Your task to perform on an android device: Show me recent news Image 0: 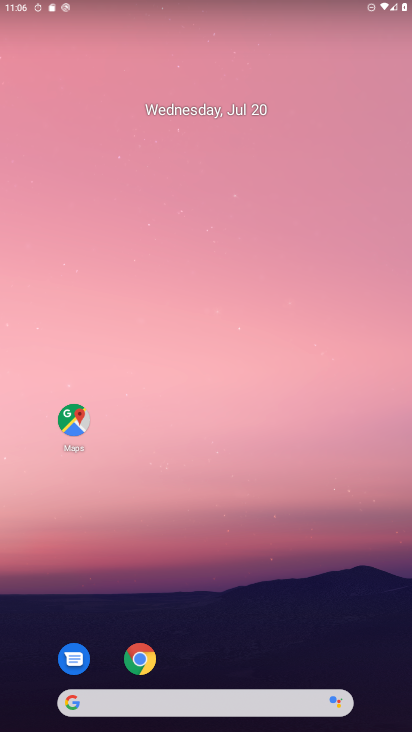
Step 0: drag from (290, 568) to (268, 123)
Your task to perform on an android device: Show me recent news Image 1: 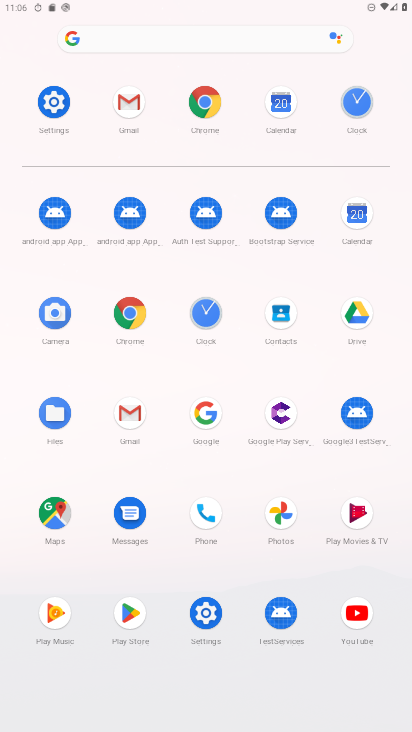
Step 1: click (202, 98)
Your task to perform on an android device: Show me recent news Image 2: 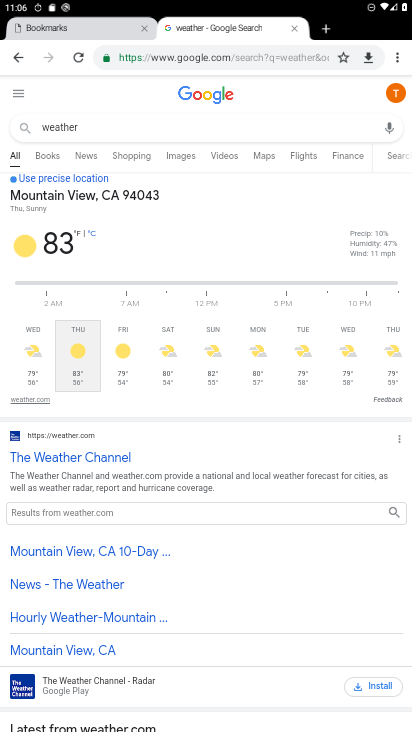
Step 2: click (236, 53)
Your task to perform on an android device: Show me recent news Image 3: 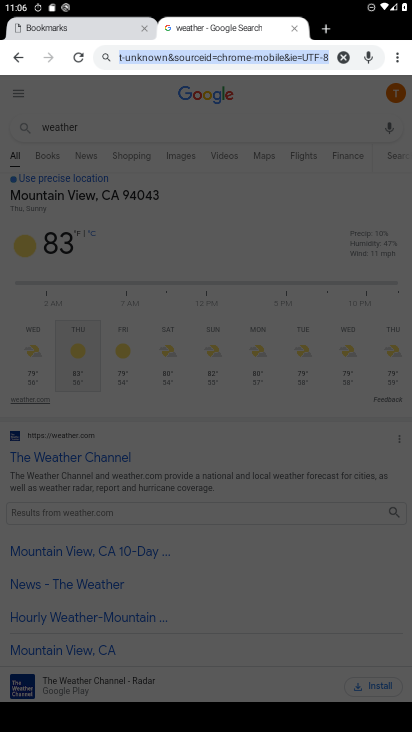
Step 3: type "news"
Your task to perform on an android device: Show me recent news Image 4: 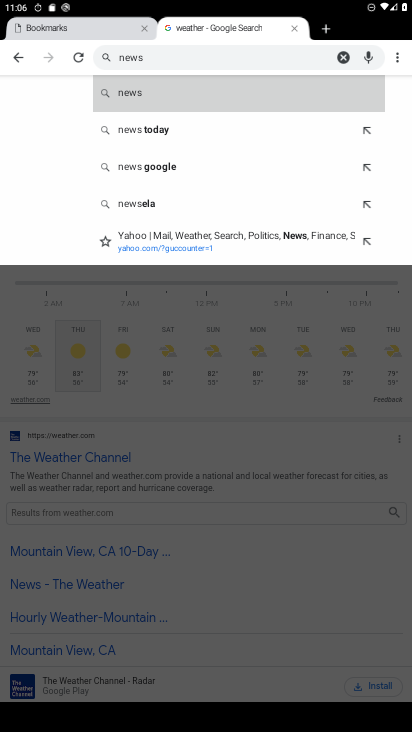
Step 4: click (155, 93)
Your task to perform on an android device: Show me recent news Image 5: 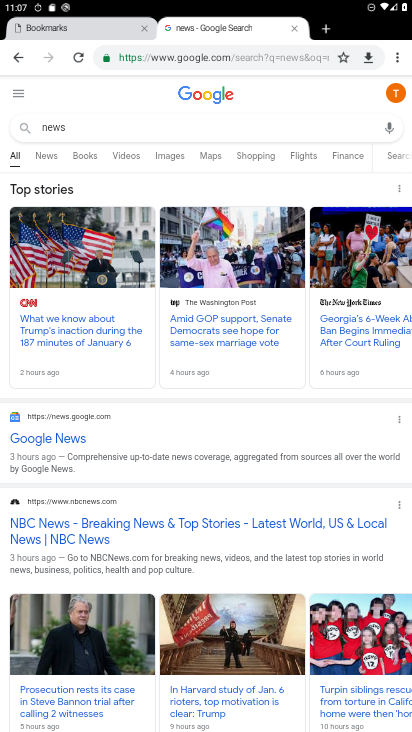
Step 5: click (38, 439)
Your task to perform on an android device: Show me recent news Image 6: 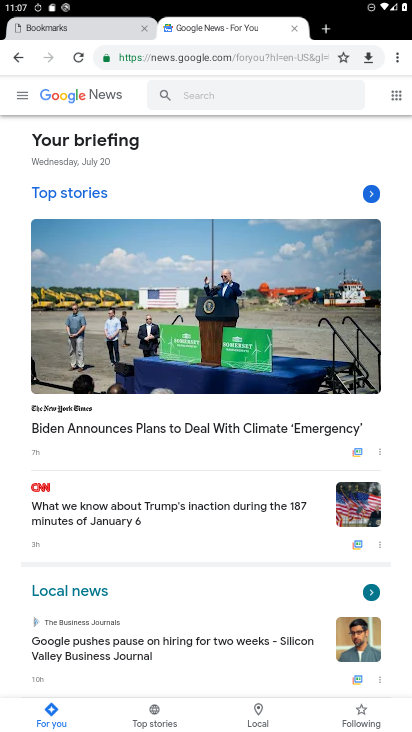
Step 6: task complete